Your task to perform on an android device: Go to Maps Image 0: 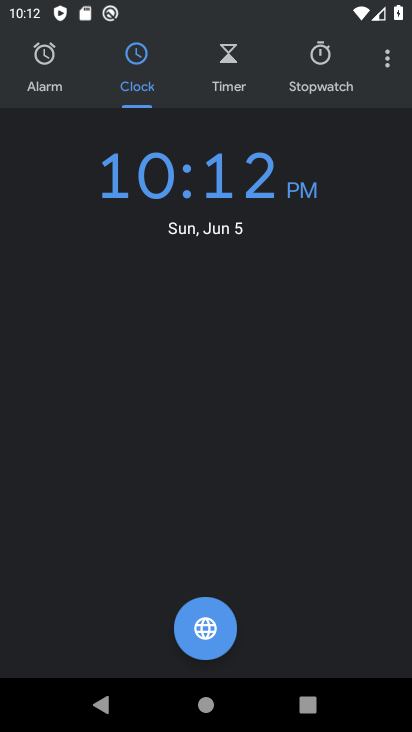
Step 0: press home button
Your task to perform on an android device: Go to Maps Image 1: 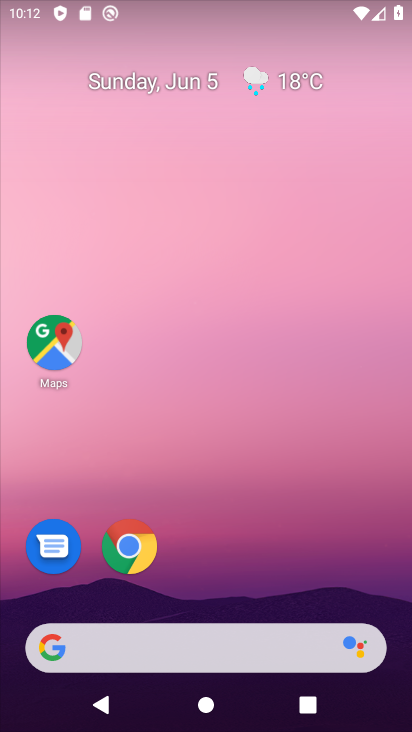
Step 1: click (60, 363)
Your task to perform on an android device: Go to Maps Image 2: 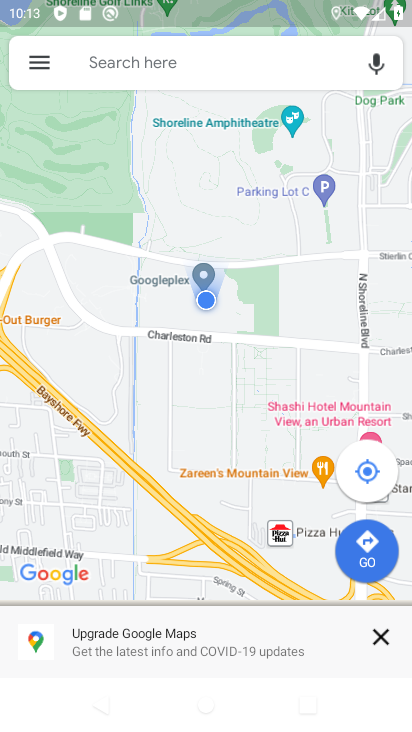
Step 2: task complete